Your task to perform on an android device: Show me productivity apps on the Play Store Image 0: 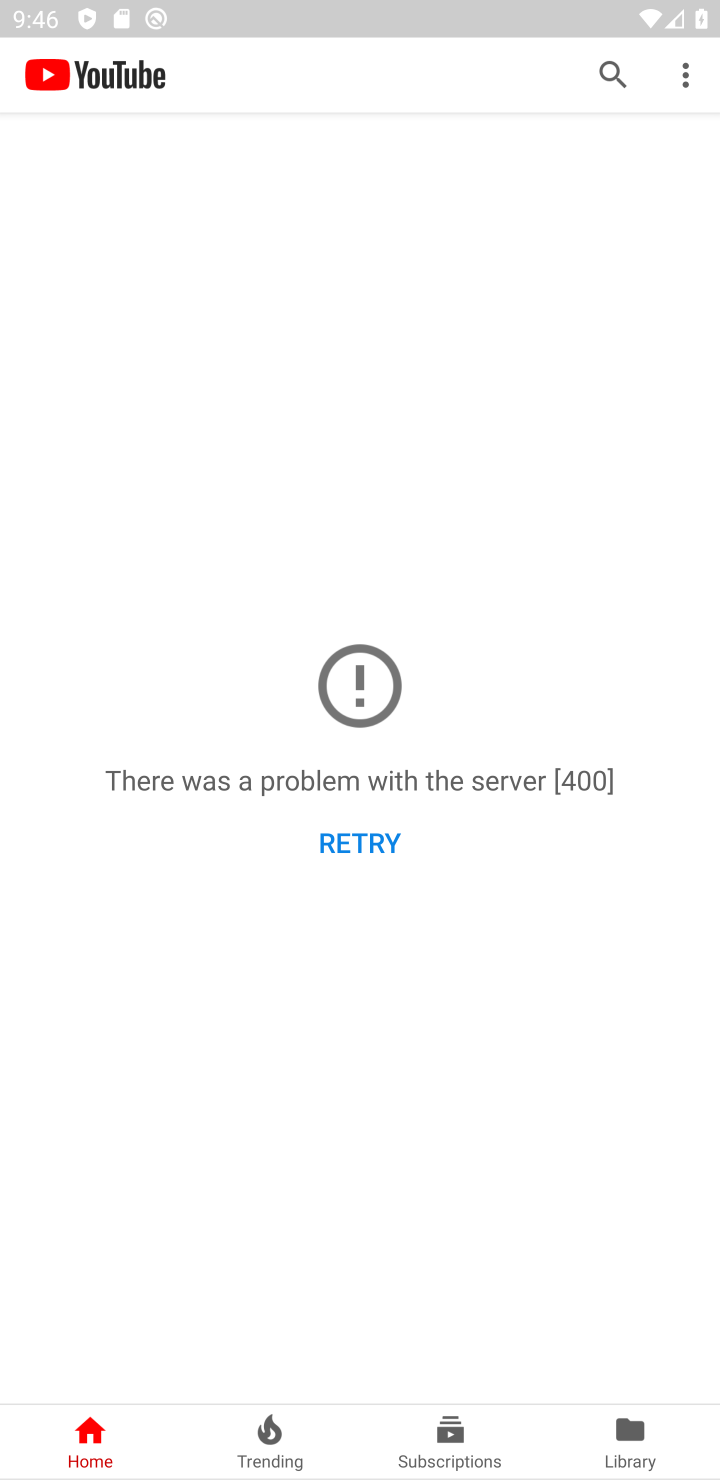
Step 0: press home button
Your task to perform on an android device: Show me productivity apps on the Play Store Image 1: 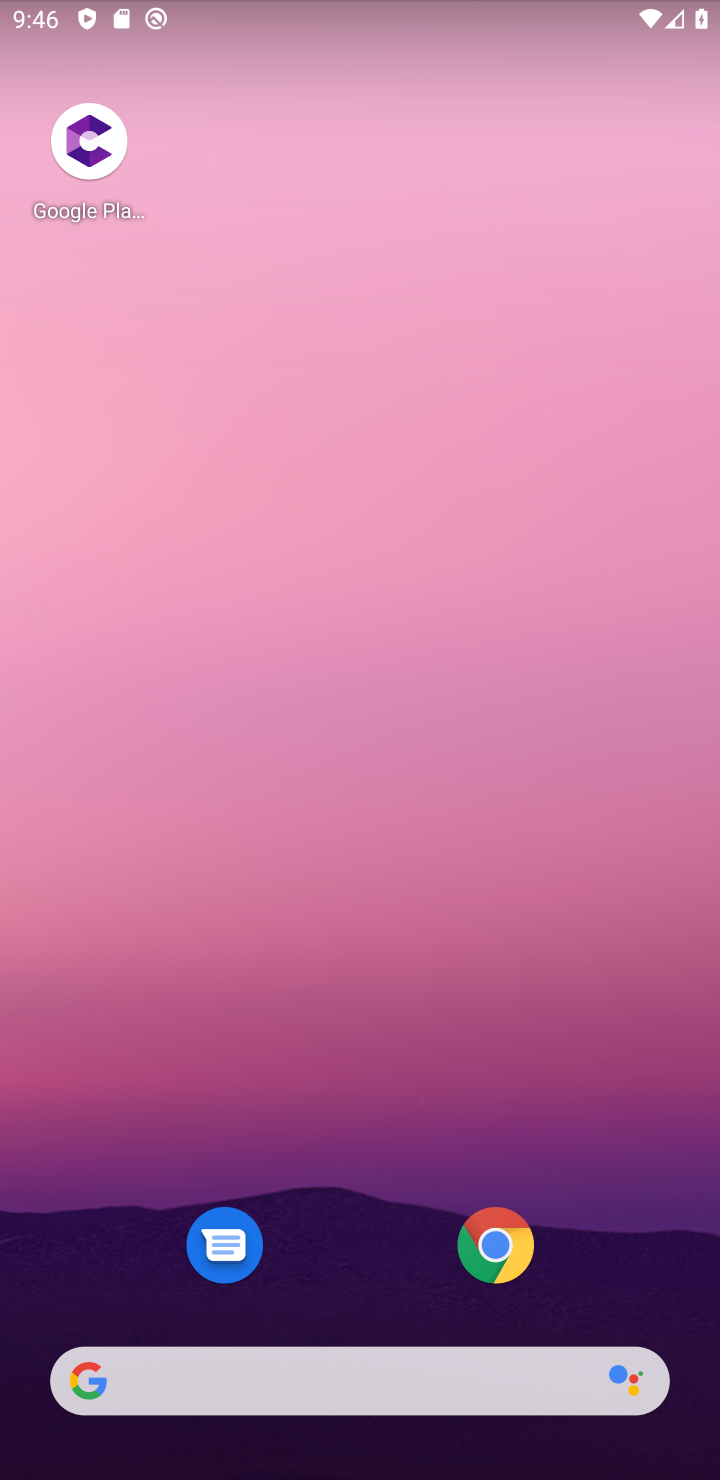
Step 1: drag from (624, 1309) to (356, 313)
Your task to perform on an android device: Show me productivity apps on the Play Store Image 2: 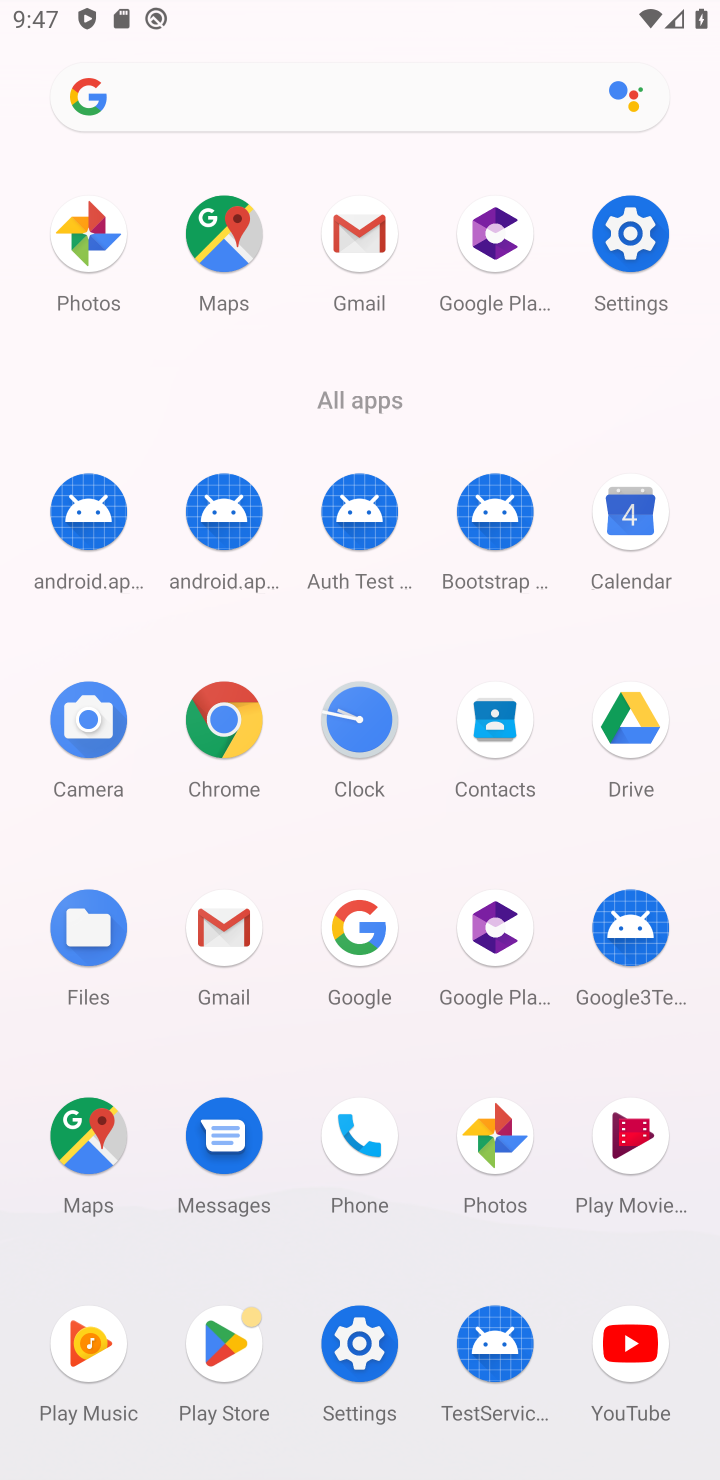
Step 2: click (228, 1331)
Your task to perform on an android device: Show me productivity apps on the Play Store Image 3: 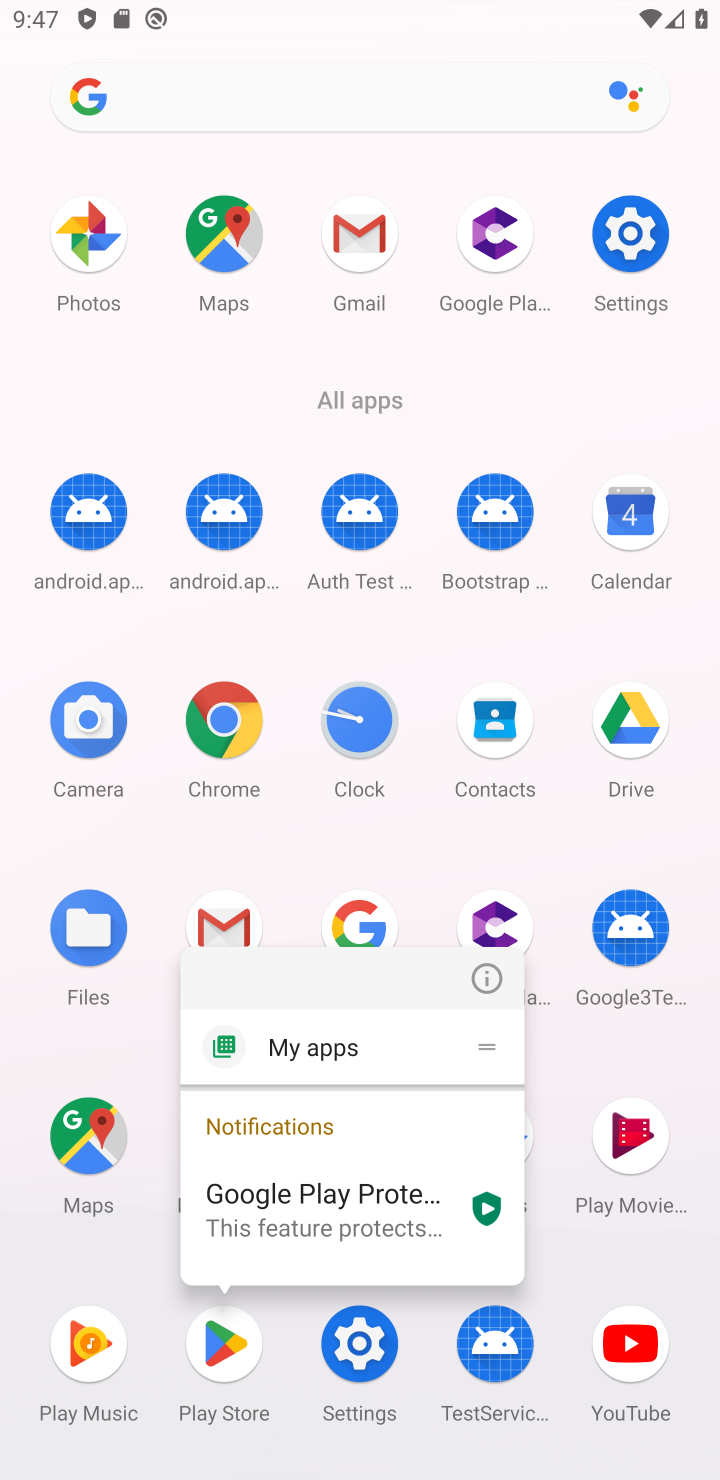
Step 3: click (219, 1352)
Your task to perform on an android device: Show me productivity apps on the Play Store Image 4: 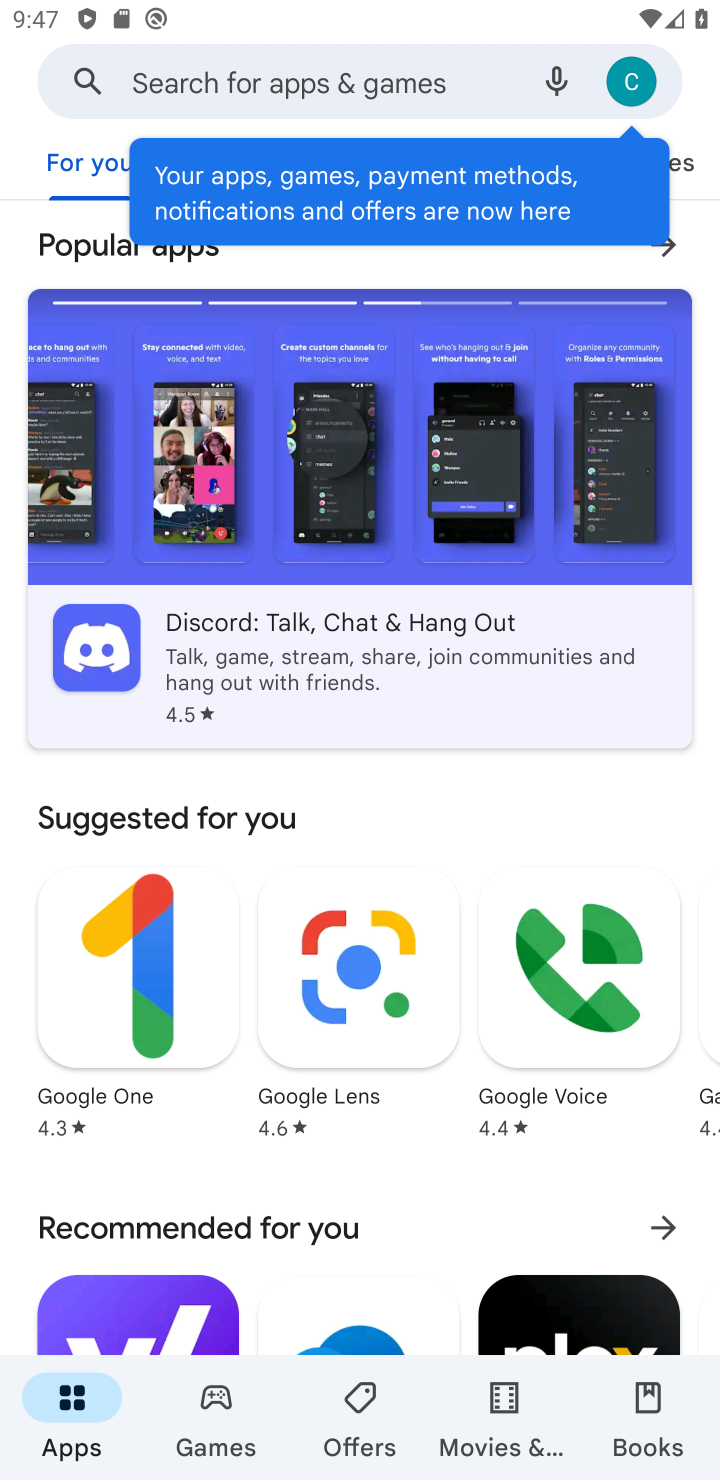
Step 4: task complete